Your task to perform on an android device: What's the weather going to be this weekend? Image 0: 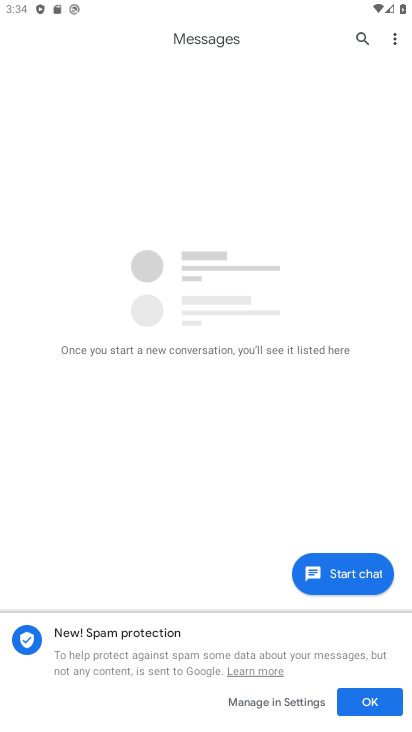
Step 0: press back button
Your task to perform on an android device: What's the weather going to be this weekend? Image 1: 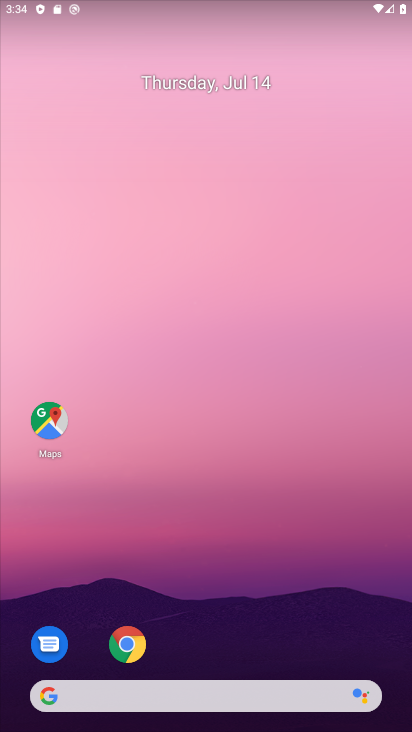
Step 1: drag from (192, 615) to (273, 11)
Your task to perform on an android device: What's the weather going to be this weekend? Image 2: 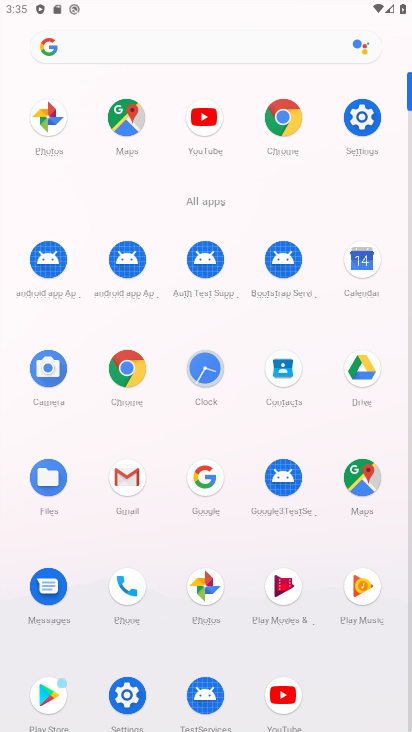
Step 2: click (155, 45)
Your task to perform on an android device: What's the weather going to be this weekend? Image 3: 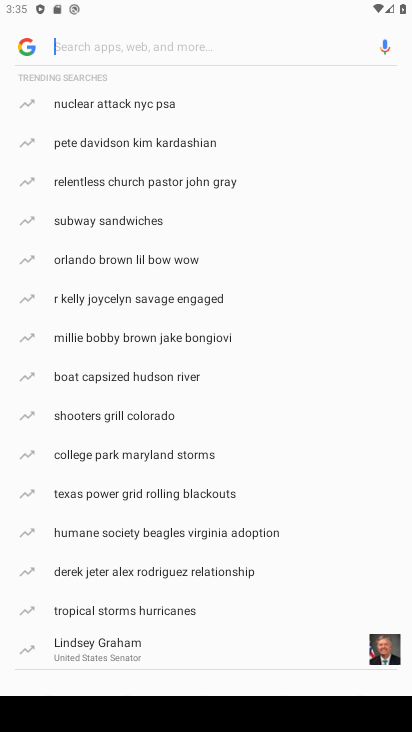
Step 3: type "weather"
Your task to perform on an android device: What's the weather going to be this weekend? Image 4: 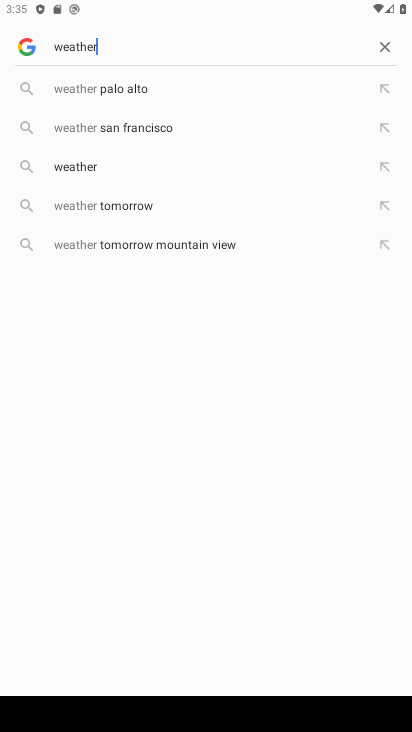
Step 4: click (114, 166)
Your task to perform on an android device: What's the weather going to be this weekend? Image 5: 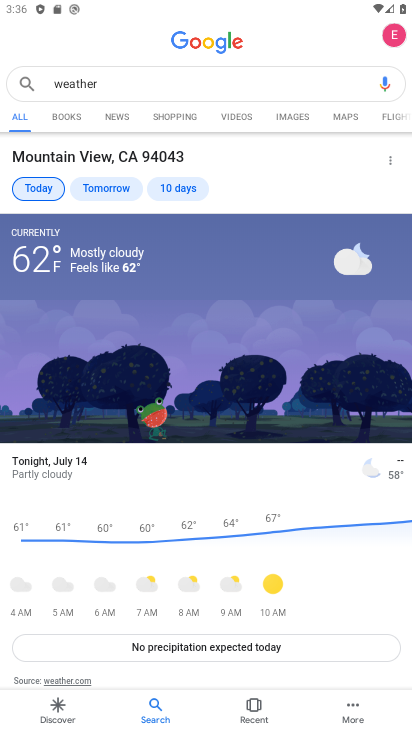
Step 5: click (174, 177)
Your task to perform on an android device: What's the weather going to be this weekend? Image 6: 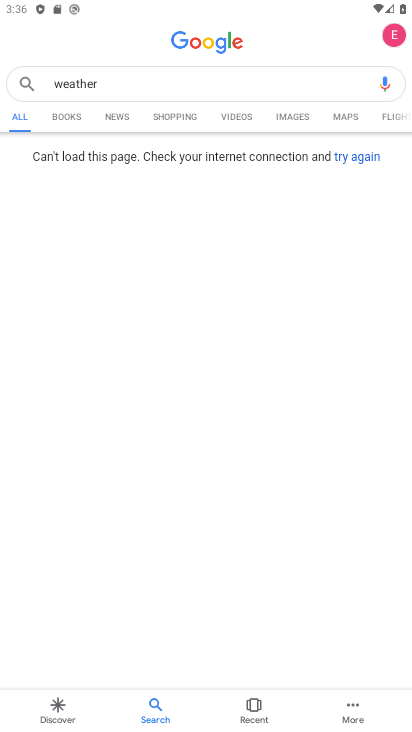
Step 6: task complete